Your task to perform on an android device: Open internet settings Image 0: 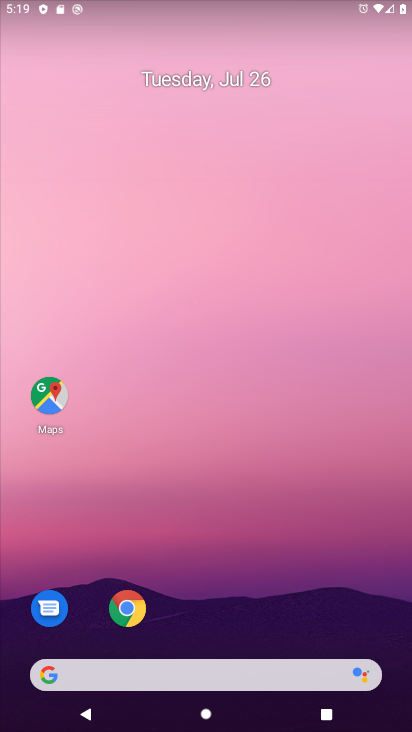
Step 0: drag from (385, 619) to (408, 543)
Your task to perform on an android device: Open internet settings Image 1: 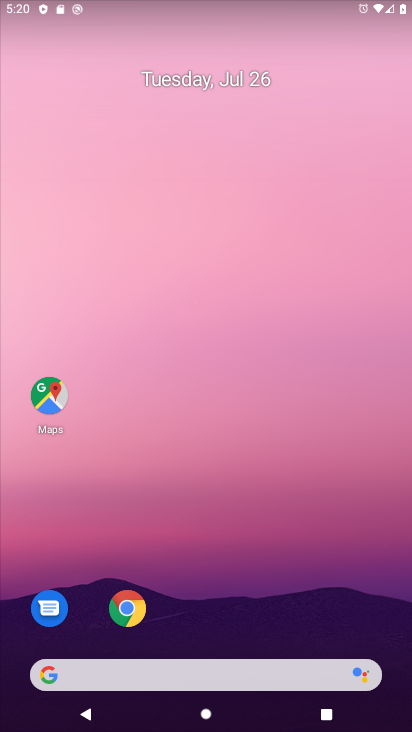
Step 1: drag from (288, 580) to (246, 48)
Your task to perform on an android device: Open internet settings Image 2: 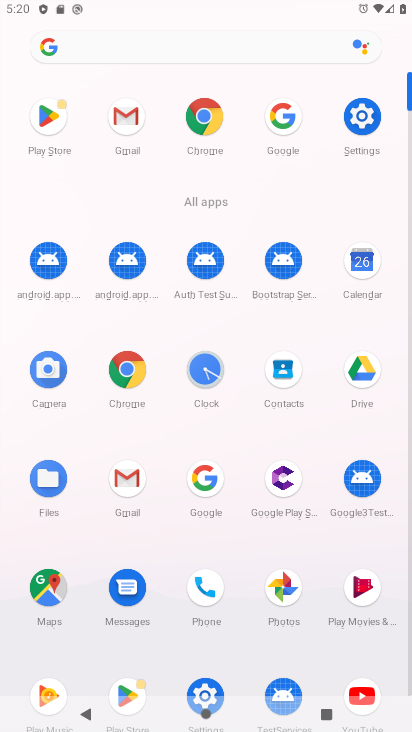
Step 2: click (373, 126)
Your task to perform on an android device: Open internet settings Image 3: 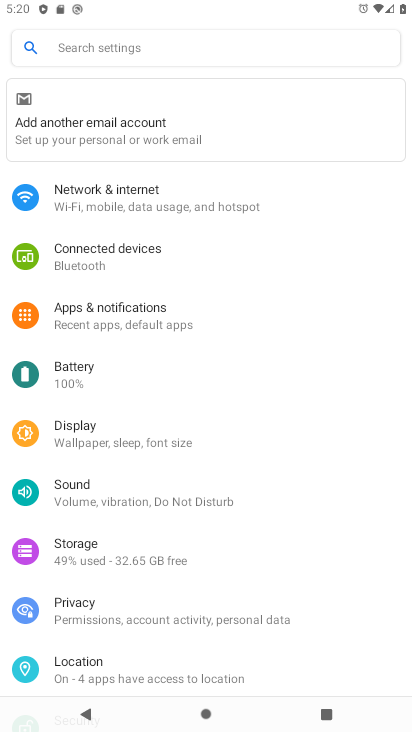
Step 3: click (38, 207)
Your task to perform on an android device: Open internet settings Image 4: 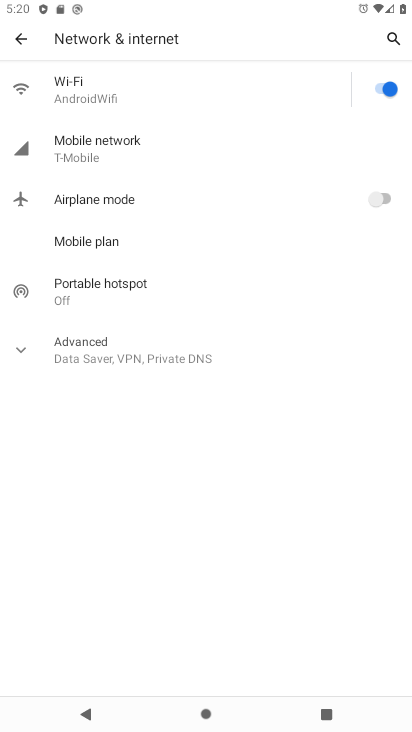
Step 4: task complete